Your task to perform on an android device: Open battery settings Image 0: 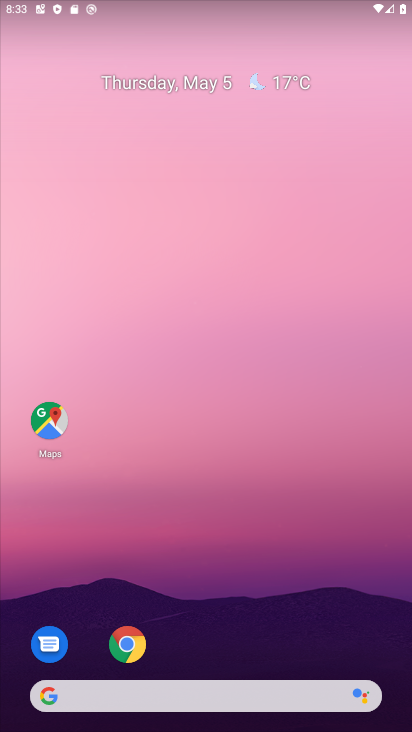
Step 0: drag from (196, 611) to (200, 335)
Your task to perform on an android device: Open battery settings Image 1: 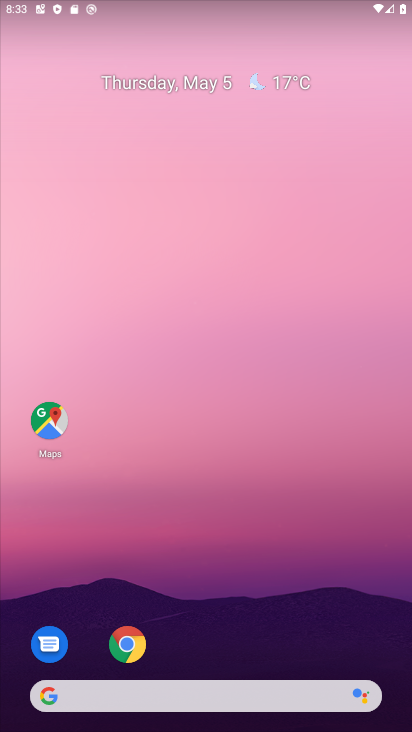
Step 1: click (200, 335)
Your task to perform on an android device: Open battery settings Image 2: 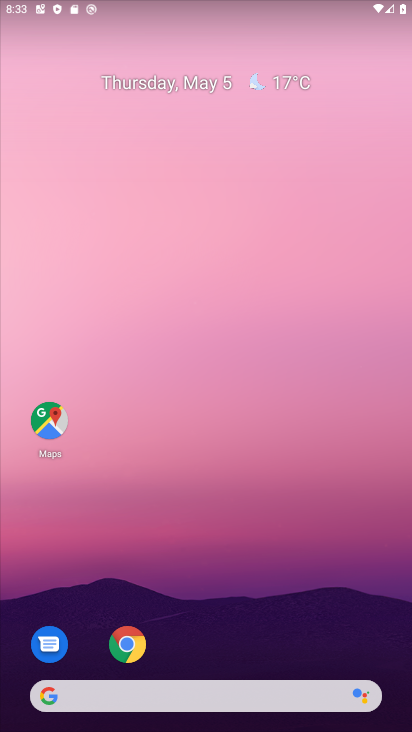
Step 2: drag from (217, 630) to (221, 291)
Your task to perform on an android device: Open battery settings Image 3: 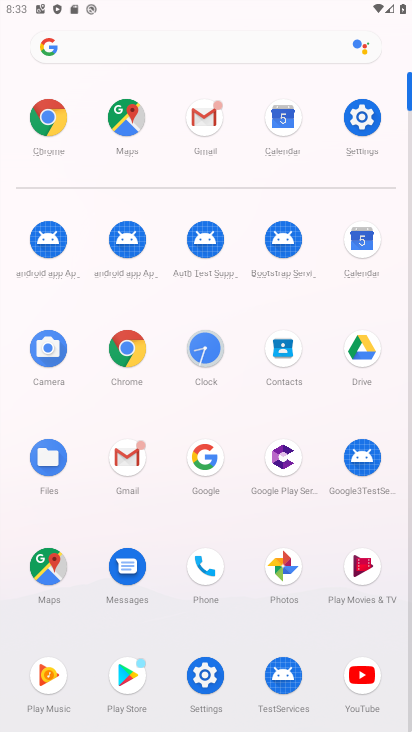
Step 3: click (369, 116)
Your task to perform on an android device: Open battery settings Image 4: 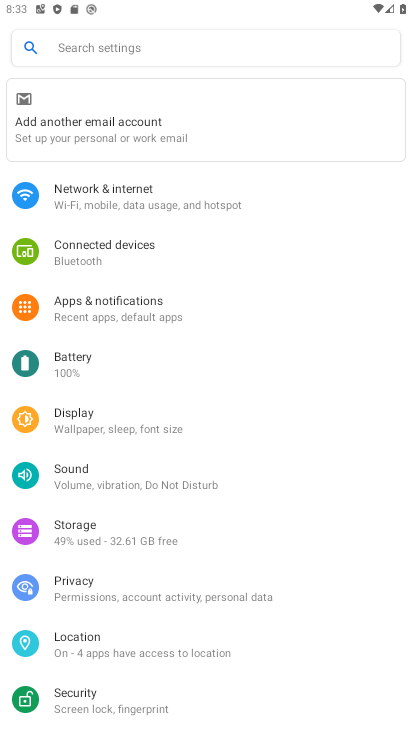
Step 4: click (114, 370)
Your task to perform on an android device: Open battery settings Image 5: 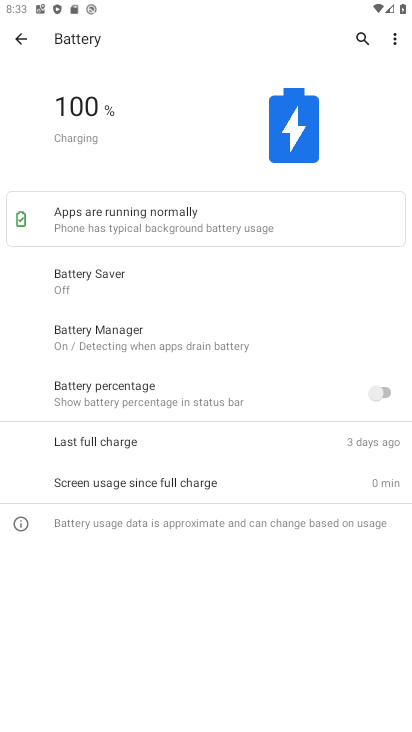
Step 5: task complete